Your task to perform on an android device: Go to wifi settings Image 0: 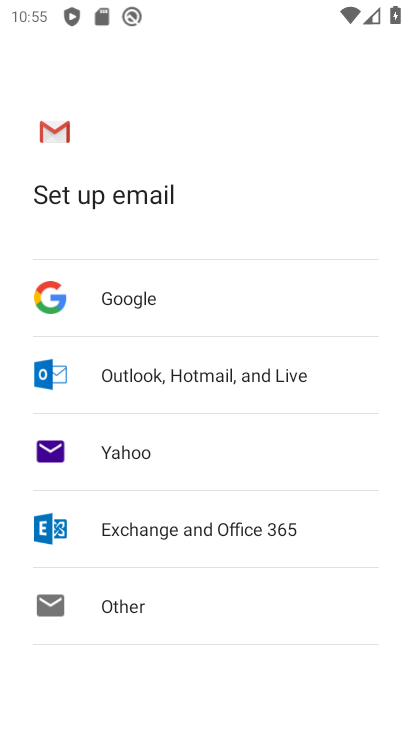
Step 0: press home button
Your task to perform on an android device: Go to wifi settings Image 1: 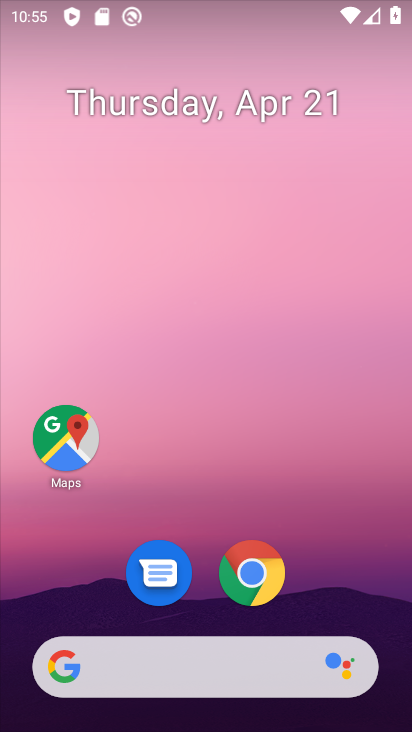
Step 1: drag from (330, 599) to (259, 117)
Your task to perform on an android device: Go to wifi settings Image 2: 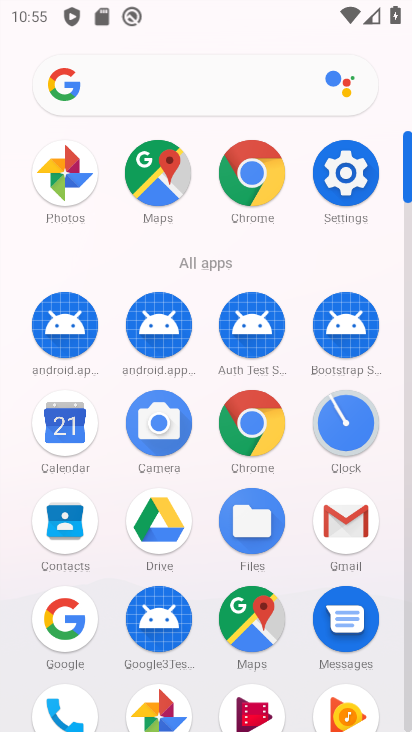
Step 2: click (359, 175)
Your task to perform on an android device: Go to wifi settings Image 3: 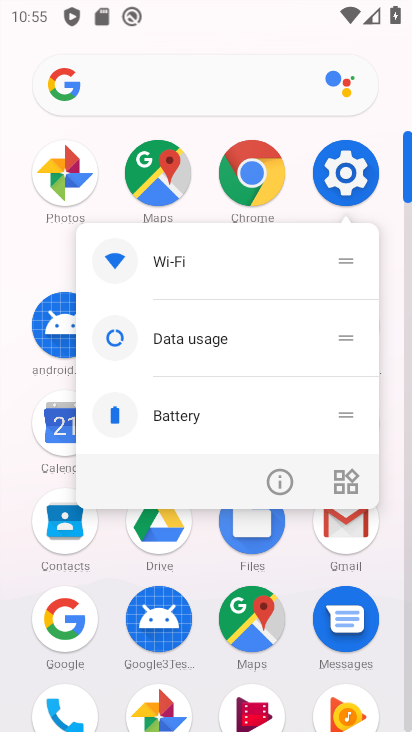
Step 3: click (343, 169)
Your task to perform on an android device: Go to wifi settings Image 4: 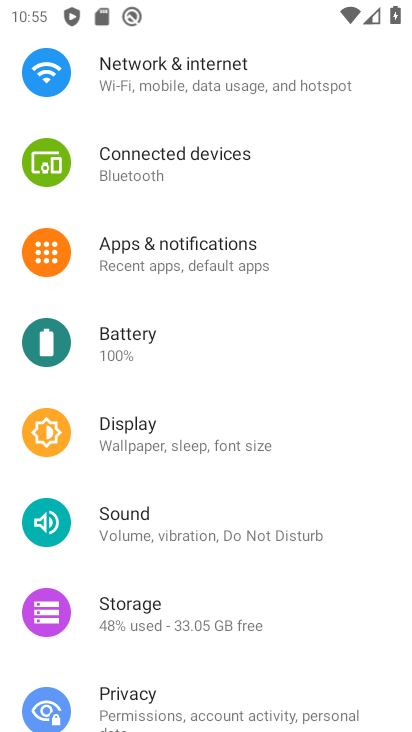
Step 4: click (254, 81)
Your task to perform on an android device: Go to wifi settings Image 5: 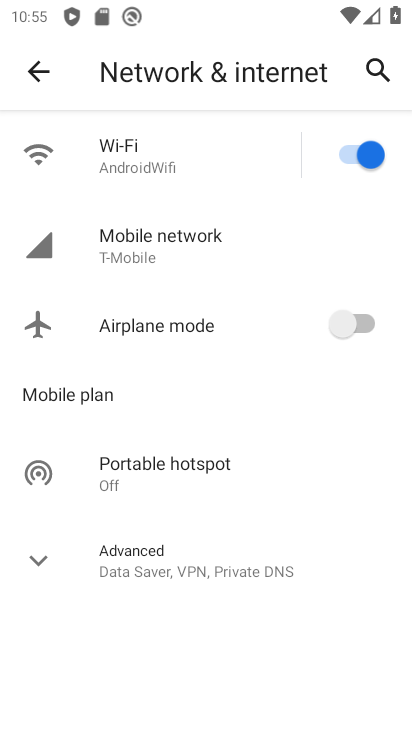
Step 5: click (165, 169)
Your task to perform on an android device: Go to wifi settings Image 6: 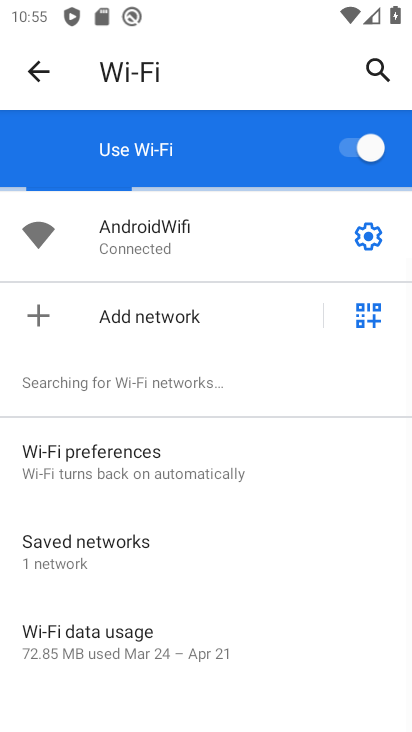
Step 6: task complete